Your task to perform on an android device: choose inbox layout in the gmail app Image 0: 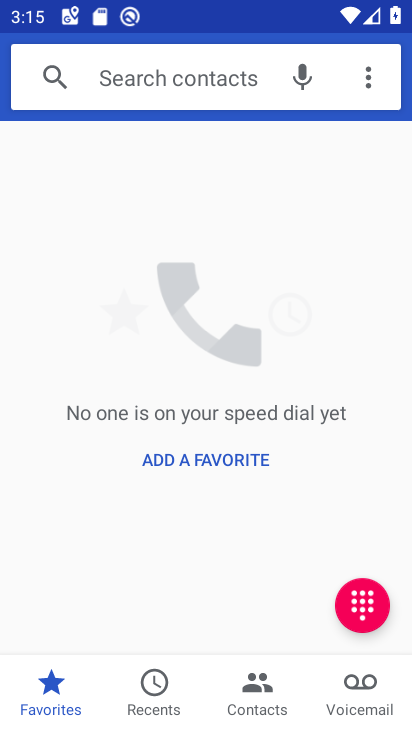
Step 0: drag from (261, 636) to (257, 271)
Your task to perform on an android device: choose inbox layout in the gmail app Image 1: 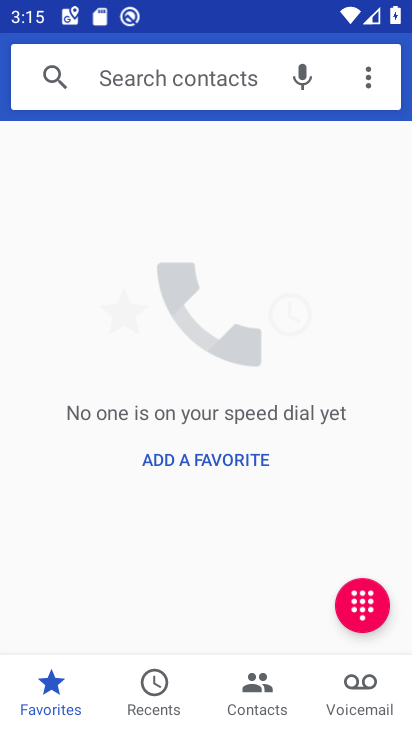
Step 1: drag from (251, 587) to (289, 346)
Your task to perform on an android device: choose inbox layout in the gmail app Image 2: 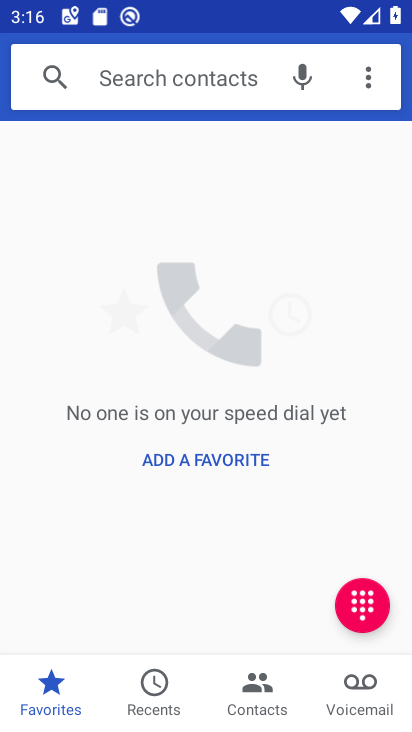
Step 2: press home button
Your task to perform on an android device: choose inbox layout in the gmail app Image 3: 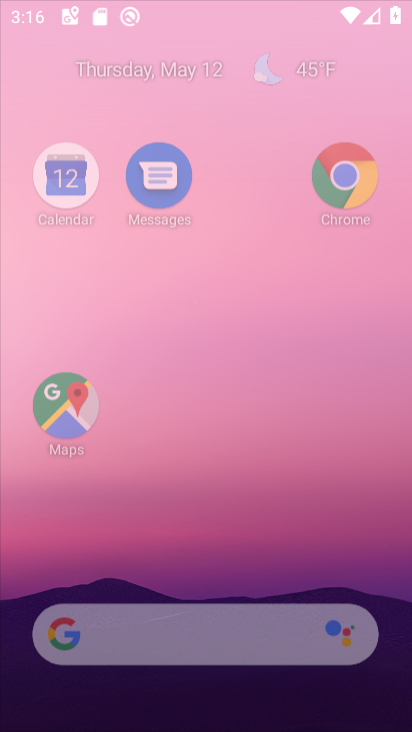
Step 3: drag from (218, 552) to (264, 116)
Your task to perform on an android device: choose inbox layout in the gmail app Image 4: 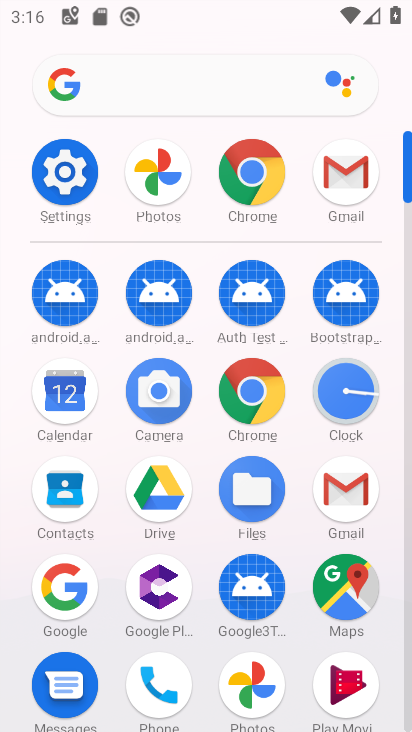
Step 4: click (333, 487)
Your task to perform on an android device: choose inbox layout in the gmail app Image 5: 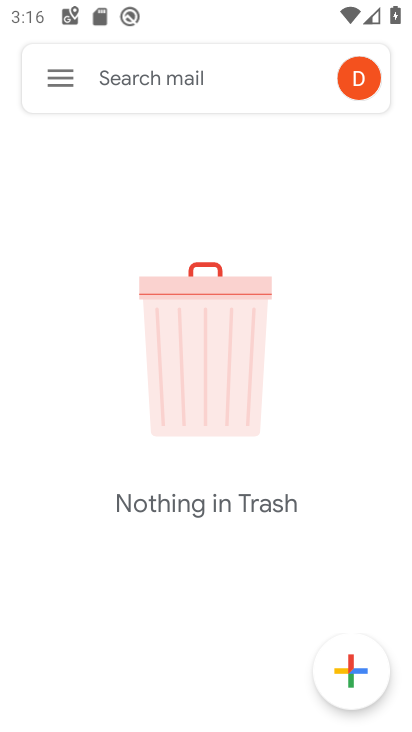
Step 5: drag from (322, 561) to (295, 275)
Your task to perform on an android device: choose inbox layout in the gmail app Image 6: 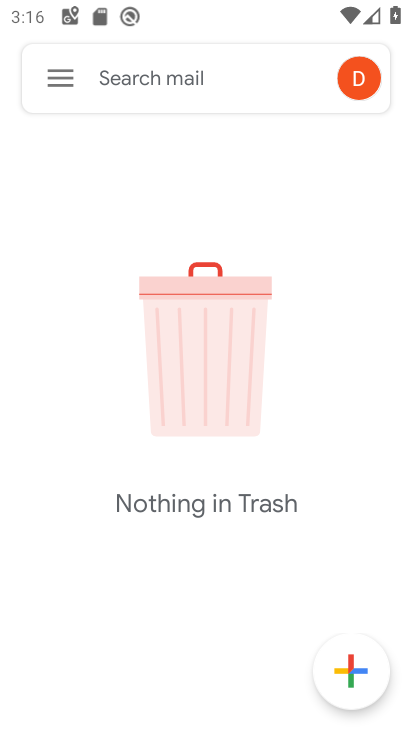
Step 6: drag from (221, 516) to (232, 269)
Your task to perform on an android device: choose inbox layout in the gmail app Image 7: 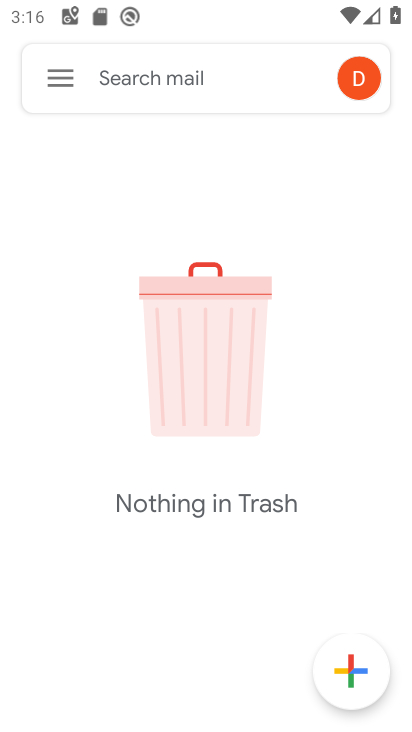
Step 7: drag from (166, 453) to (204, 146)
Your task to perform on an android device: choose inbox layout in the gmail app Image 8: 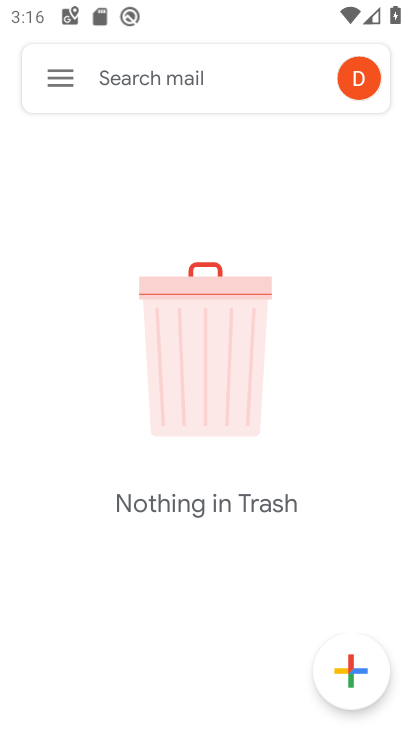
Step 8: click (68, 61)
Your task to perform on an android device: choose inbox layout in the gmail app Image 9: 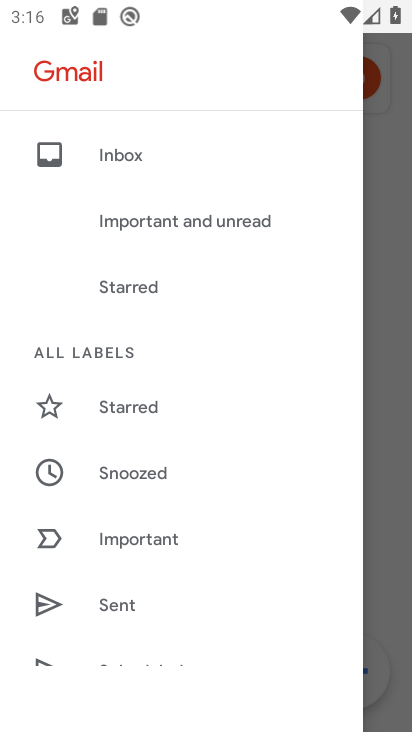
Step 9: click (138, 138)
Your task to perform on an android device: choose inbox layout in the gmail app Image 10: 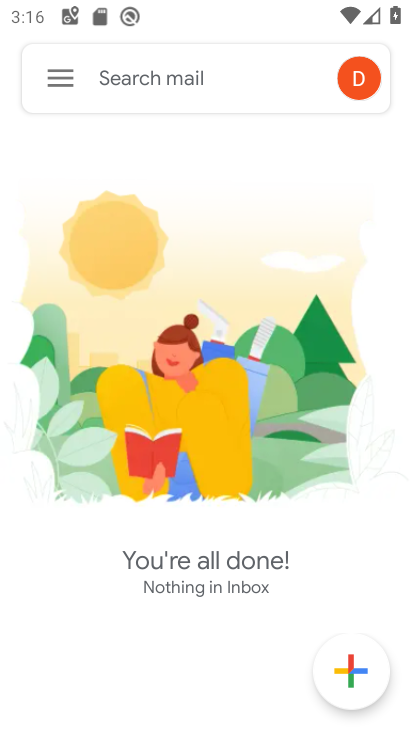
Step 10: drag from (120, 607) to (201, 231)
Your task to perform on an android device: choose inbox layout in the gmail app Image 11: 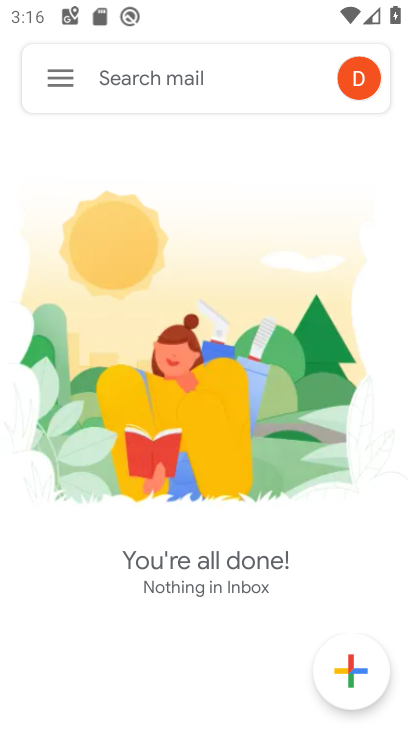
Step 11: click (66, 71)
Your task to perform on an android device: choose inbox layout in the gmail app Image 12: 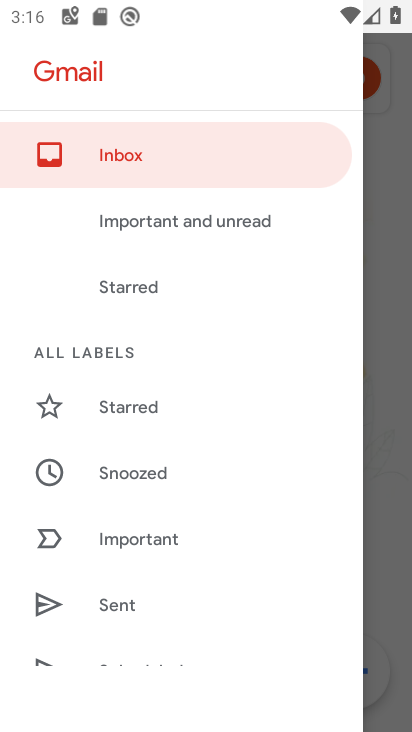
Step 12: task complete